Your task to perform on an android device: change the clock display to show seconds Image 0: 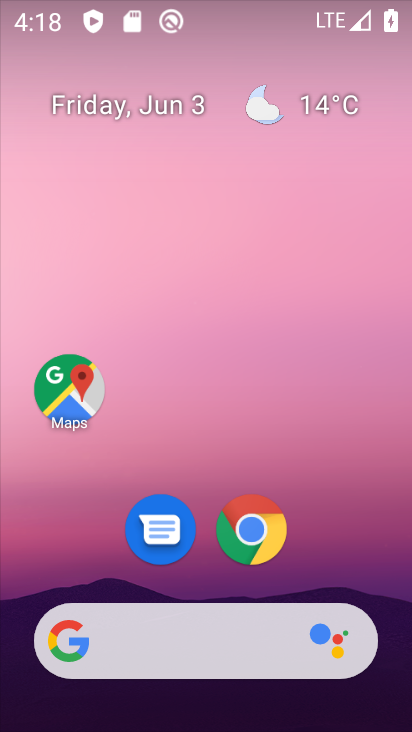
Step 0: press home button
Your task to perform on an android device: change the clock display to show seconds Image 1: 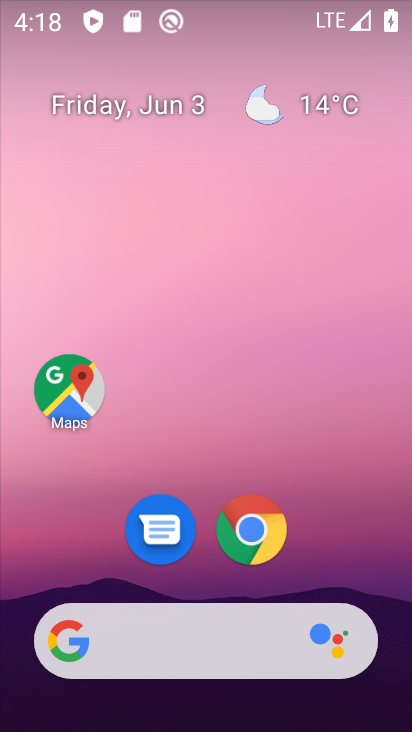
Step 1: drag from (206, 585) to (194, 36)
Your task to perform on an android device: change the clock display to show seconds Image 2: 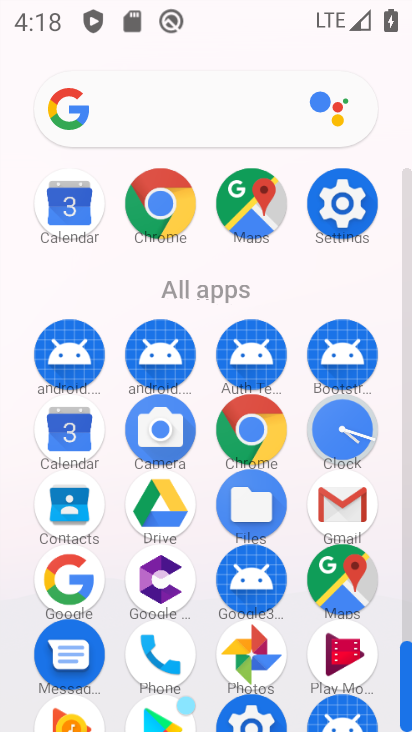
Step 2: click (341, 421)
Your task to perform on an android device: change the clock display to show seconds Image 3: 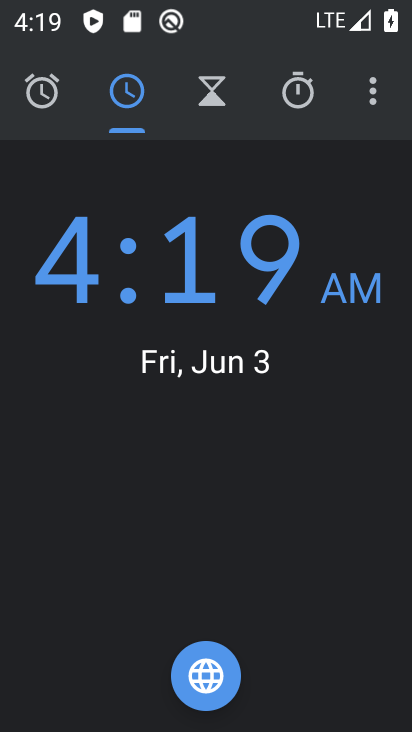
Step 3: click (367, 86)
Your task to perform on an android device: change the clock display to show seconds Image 4: 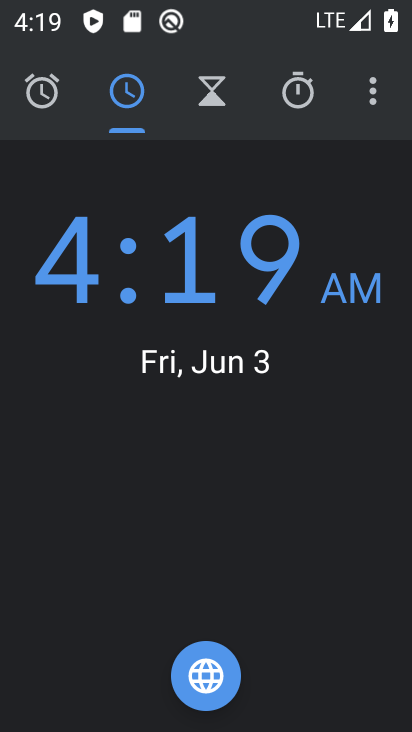
Step 4: click (376, 90)
Your task to perform on an android device: change the clock display to show seconds Image 5: 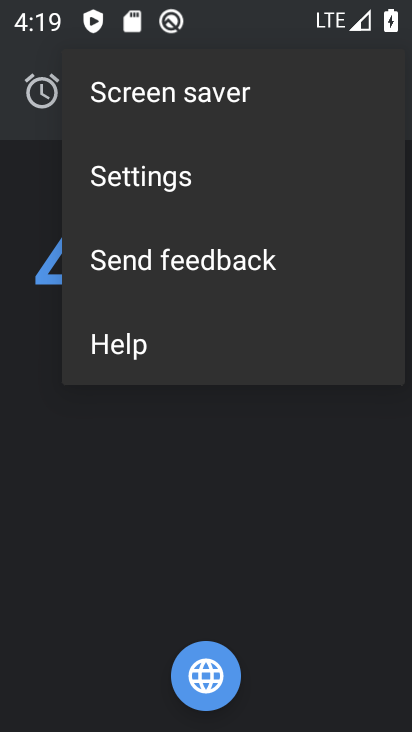
Step 5: click (228, 177)
Your task to perform on an android device: change the clock display to show seconds Image 6: 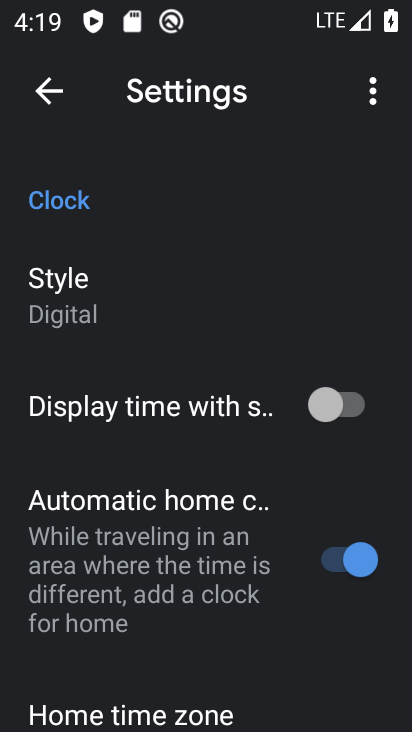
Step 6: click (348, 406)
Your task to perform on an android device: change the clock display to show seconds Image 7: 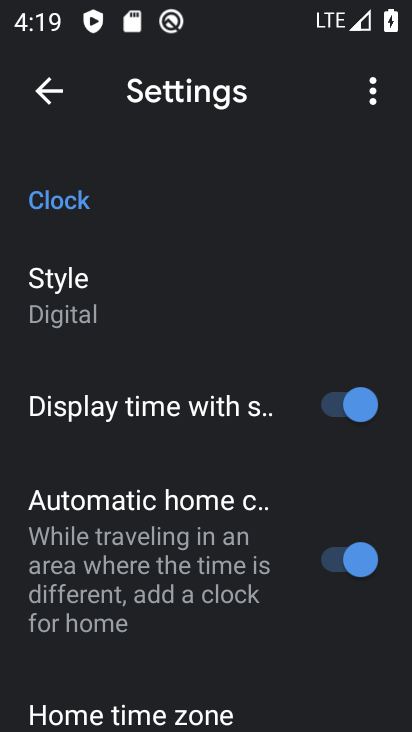
Step 7: task complete